Your task to perform on an android device: manage bookmarks in the chrome app Image 0: 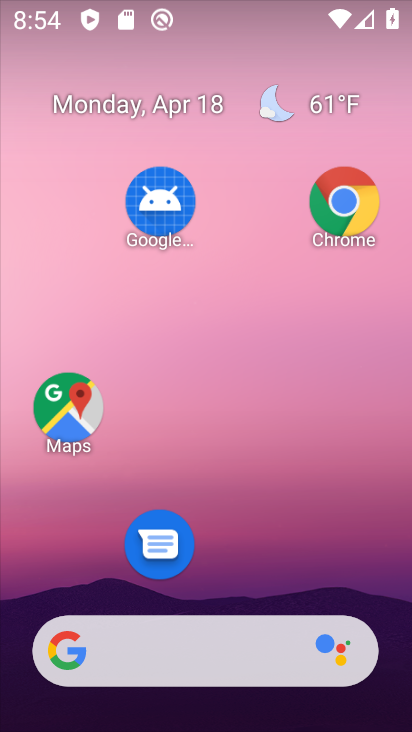
Step 0: drag from (227, 593) to (225, 69)
Your task to perform on an android device: manage bookmarks in the chrome app Image 1: 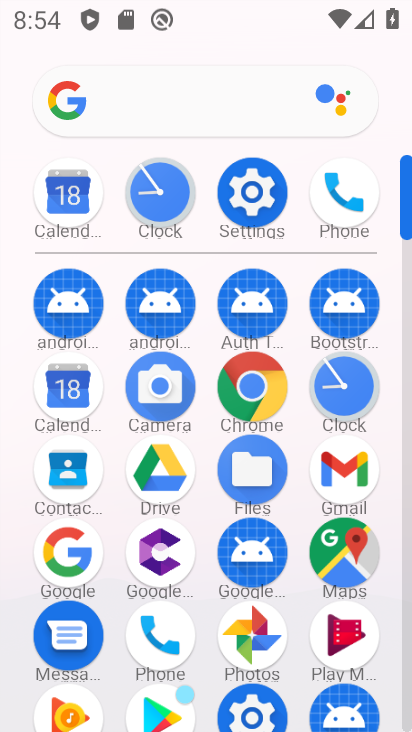
Step 1: click (258, 407)
Your task to perform on an android device: manage bookmarks in the chrome app Image 2: 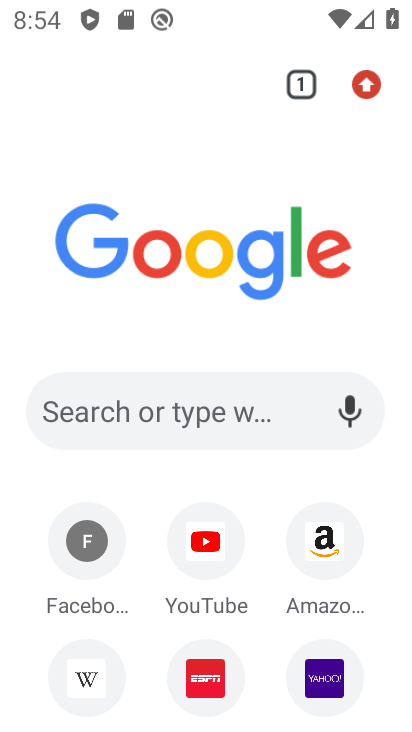
Step 2: click (366, 79)
Your task to perform on an android device: manage bookmarks in the chrome app Image 3: 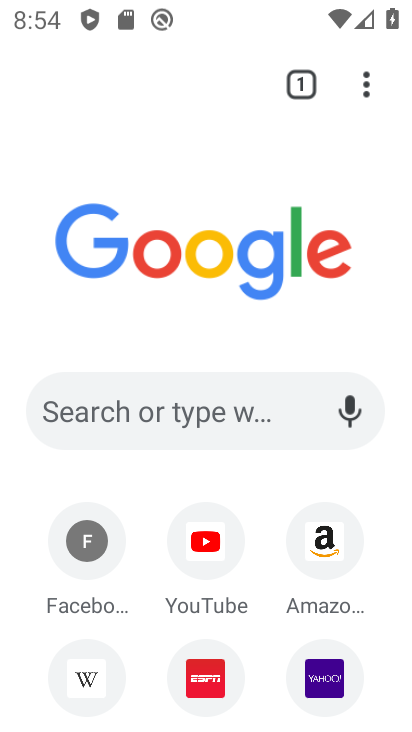
Step 3: click (366, 79)
Your task to perform on an android device: manage bookmarks in the chrome app Image 4: 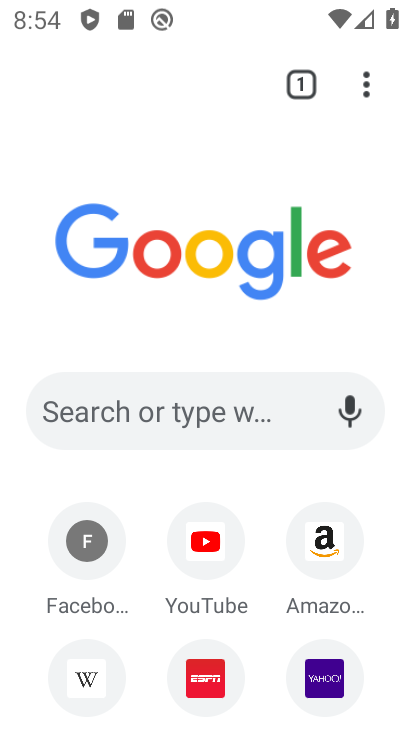
Step 4: click (361, 78)
Your task to perform on an android device: manage bookmarks in the chrome app Image 5: 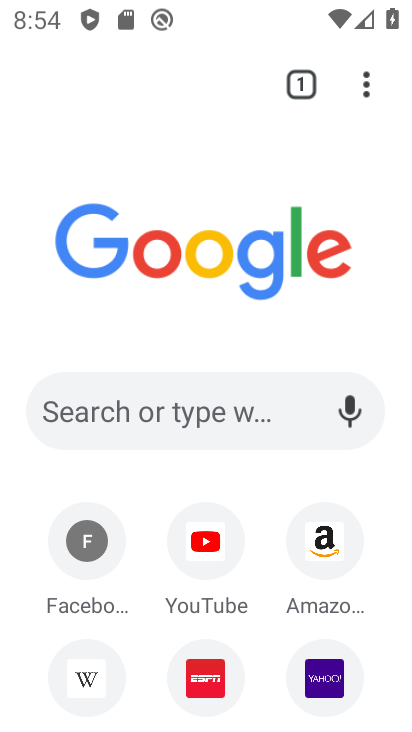
Step 5: click (360, 84)
Your task to perform on an android device: manage bookmarks in the chrome app Image 6: 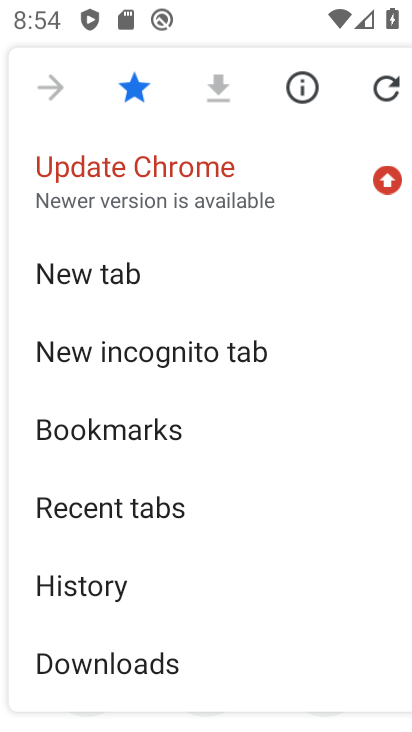
Step 6: click (63, 424)
Your task to perform on an android device: manage bookmarks in the chrome app Image 7: 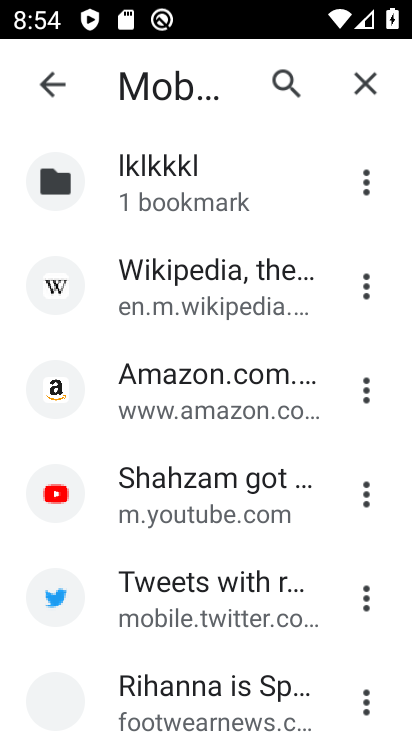
Step 7: click (361, 278)
Your task to perform on an android device: manage bookmarks in the chrome app Image 8: 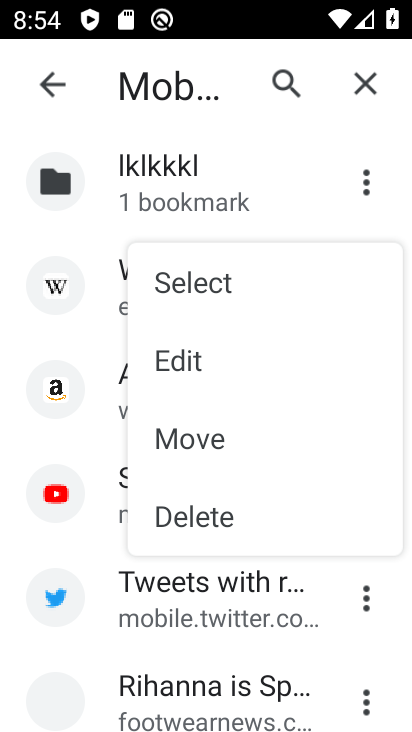
Step 8: click (220, 346)
Your task to perform on an android device: manage bookmarks in the chrome app Image 9: 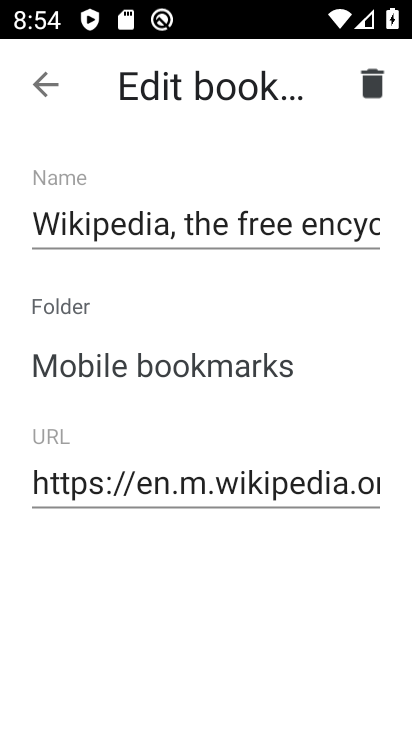
Step 9: click (376, 83)
Your task to perform on an android device: manage bookmarks in the chrome app Image 10: 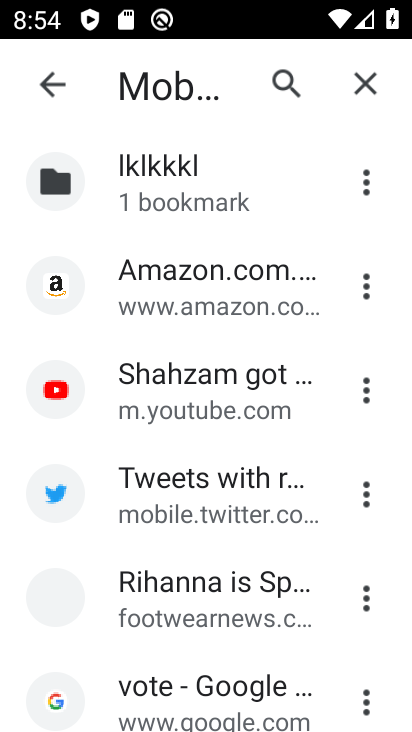
Step 10: task complete